Your task to perform on an android device: toggle improve location accuracy Image 0: 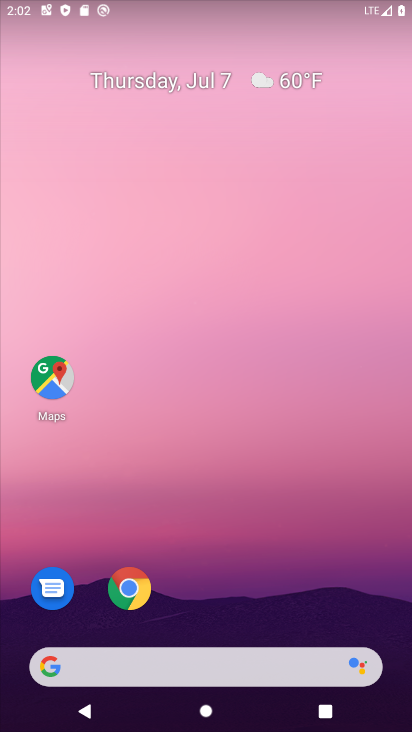
Step 0: drag from (337, 548) to (301, 139)
Your task to perform on an android device: toggle improve location accuracy Image 1: 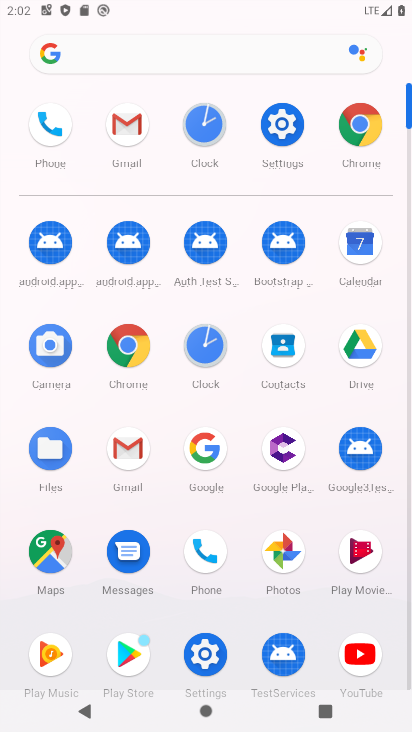
Step 1: click (286, 112)
Your task to perform on an android device: toggle improve location accuracy Image 2: 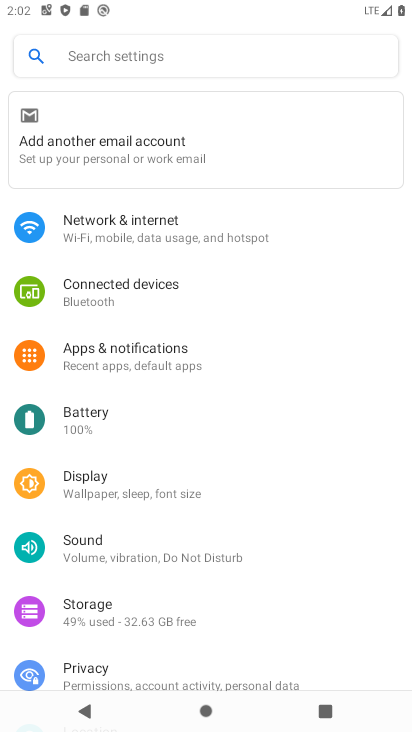
Step 2: drag from (194, 545) to (188, 248)
Your task to perform on an android device: toggle improve location accuracy Image 3: 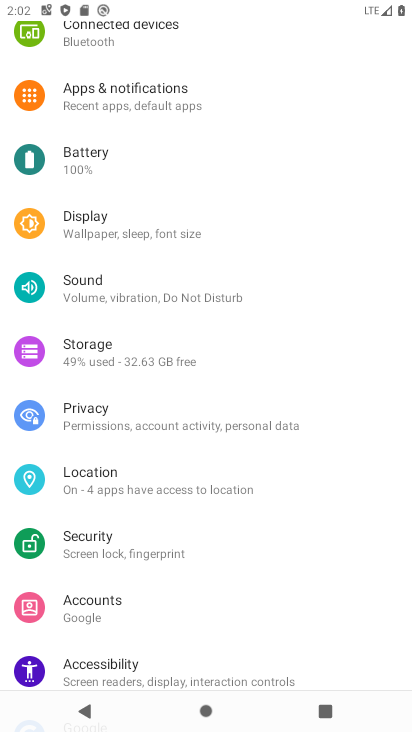
Step 3: click (174, 479)
Your task to perform on an android device: toggle improve location accuracy Image 4: 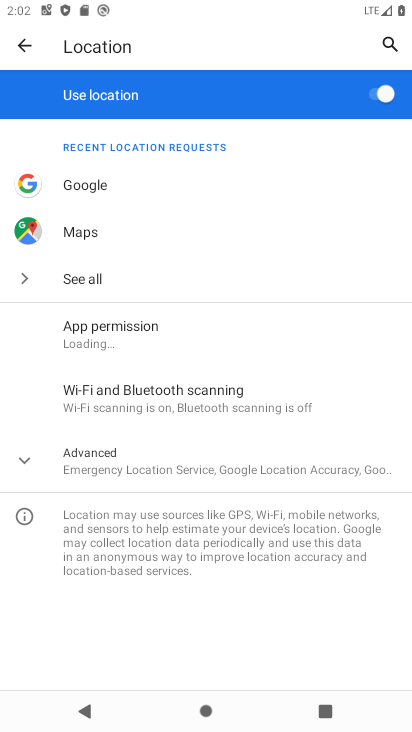
Step 4: click (184, 461)
Your task to perform on an android device: toggle improve location accuracy Image 5: 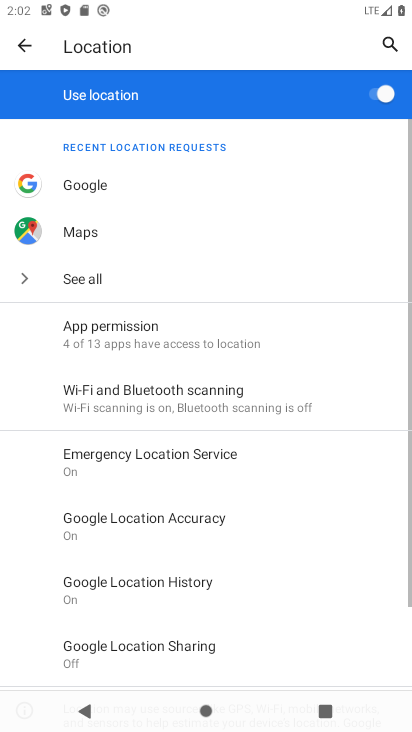
Step 5: drag from (152, 581) to (170, 428)
Your task to perform on an android device: toggle improve location accuracy Image 6: 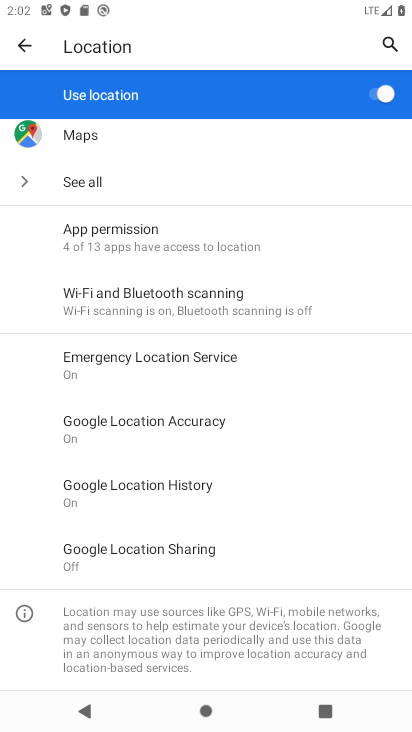
Step 6: click (173, 409)
Your task to perform on an android device: toggle improve location accuracy Image 7: 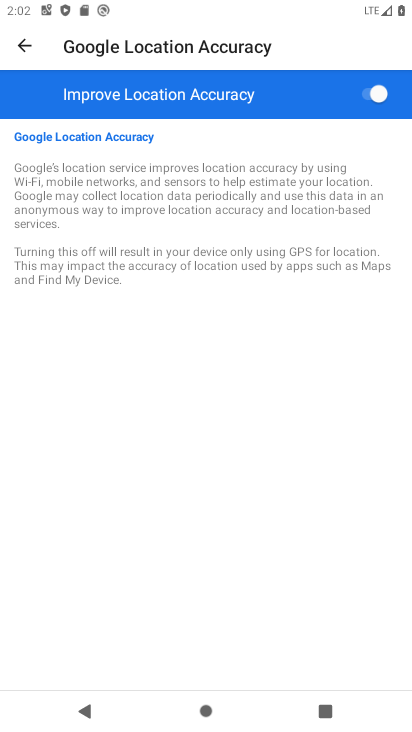
Step 7: click (371, 92)
Your task to perform on an android device: toggle improve location accuracy Image 8: 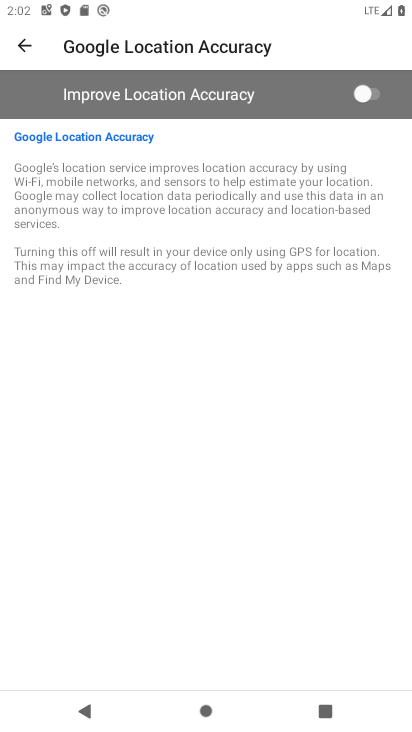
Step 8: task complete